Your task to perform on an android device: Go to ESPN.com Image 0: 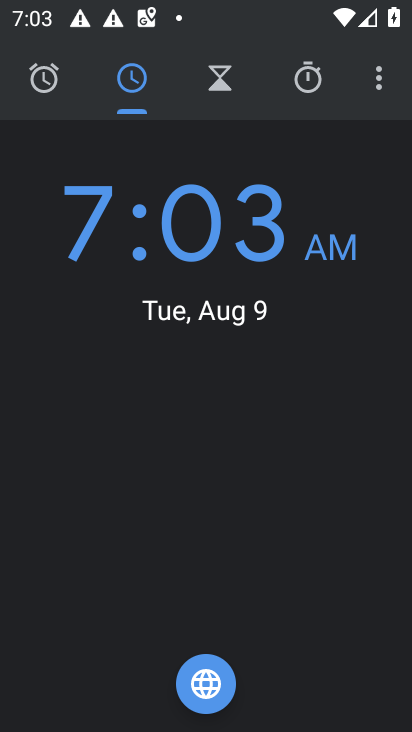
Step 0: press home button
Your task to perform on an android device: Go to ESPN.com Image 1: 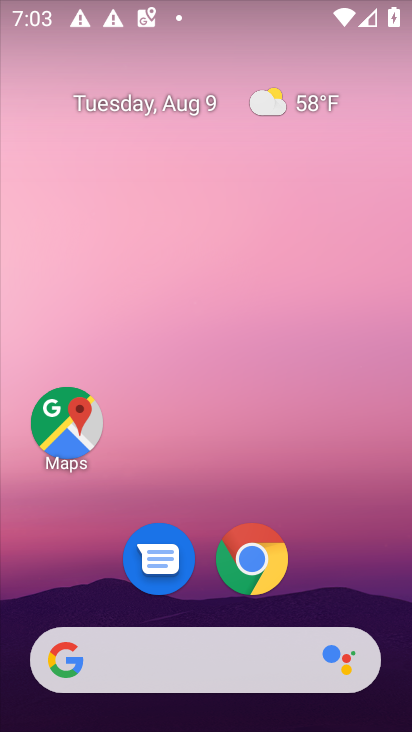
Step 1: click (256, 546)
Your task to perform on an android device: Go to ESPN.com Image 2: 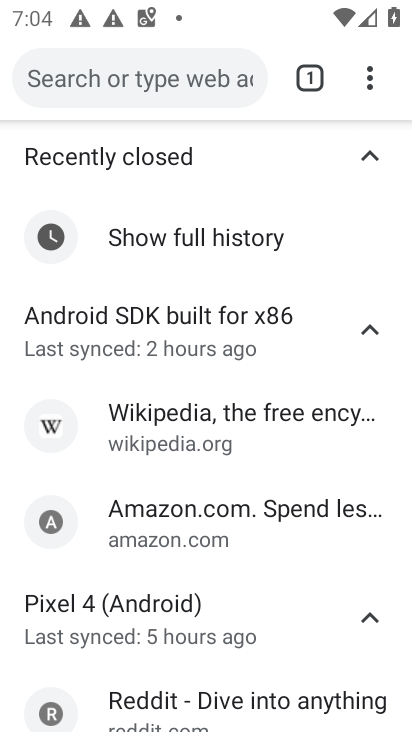
Step 2: click (117, 78)
Your task to perform on an android device: Go to ESPN.com Image 3: 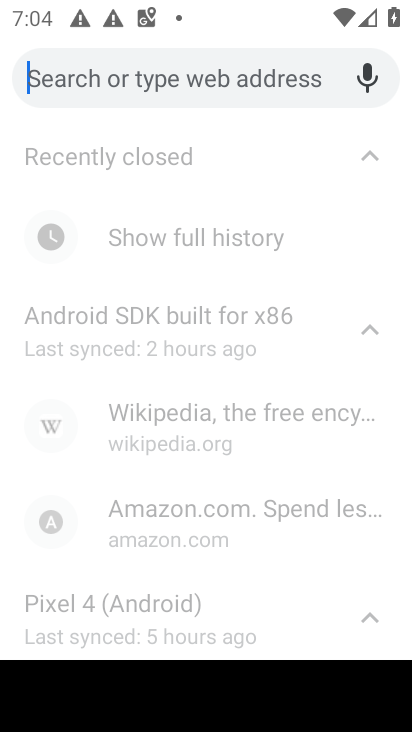
Step 3: type "ESPN.com"
Your task to perform on an android device: Go to ESPN.com Image 4: 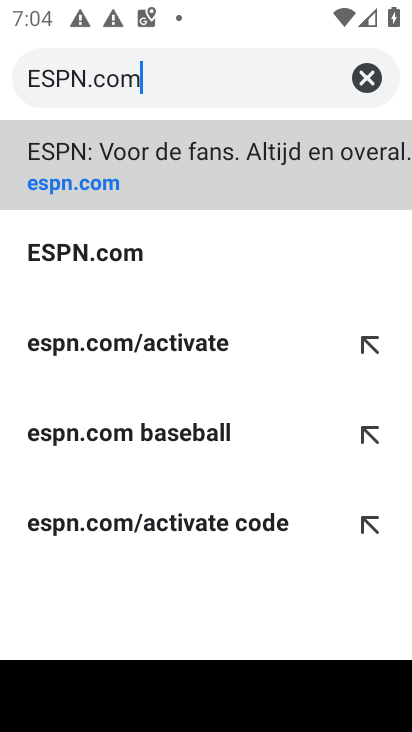
Step 4: click (59, 186)
Your task to perform on an android device: Go to ESPN.com Image 5: 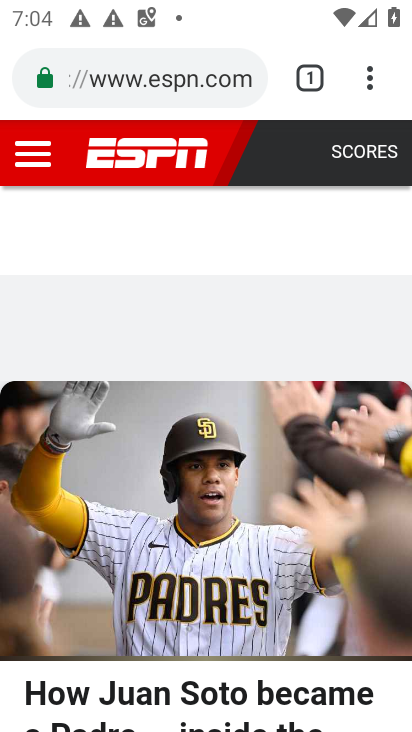
Step 5: task complete